Your task to perform on an android device: turn off javascript in the chrome app Image 0: 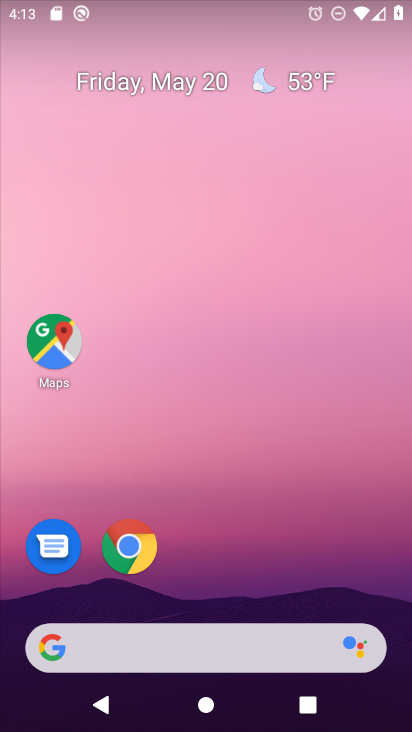
Step 0: click (133, 549)
Your task to perform on an android device: turn off javascript in the chrome app Image 1: 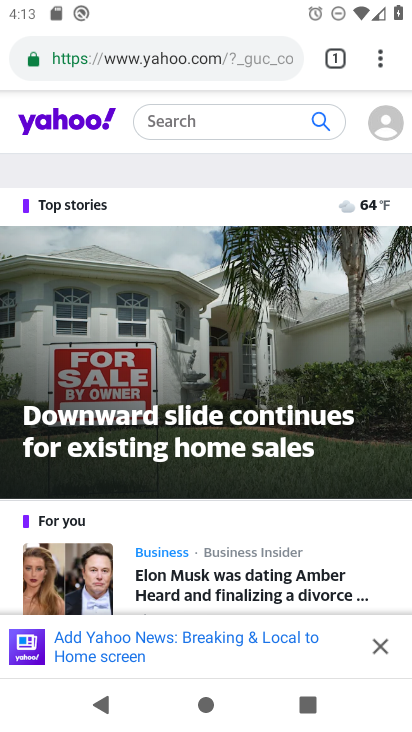
Step 1: drag from (381, 48) to (232, 582)
Your task to perform on an android device: turn off javascript in the chrome app Image 2: 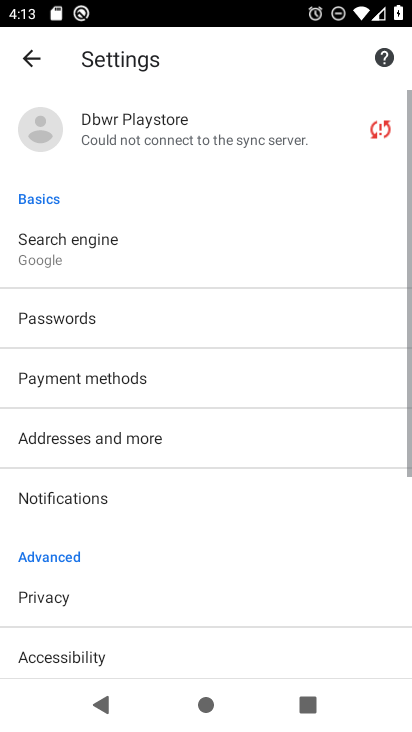
Step 2: drag from (226, 563) to (239, 178)
Your task to perform on an android device: turn off javascript in the chrome app Image 3: 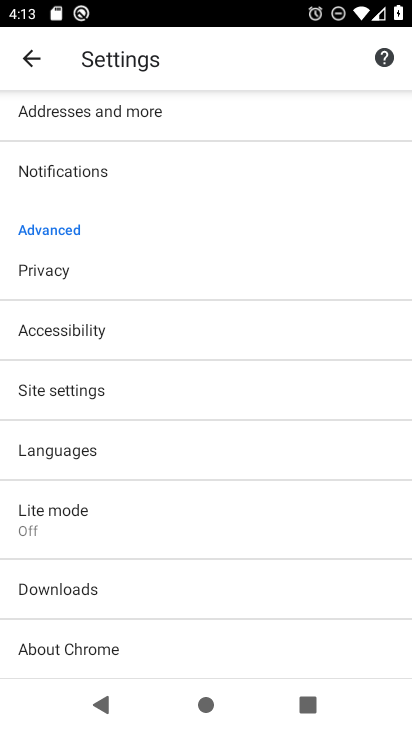
Step 3: click (167, 401)
Your task to perform on an android device: turn off javascript in the chrome app Image 4: 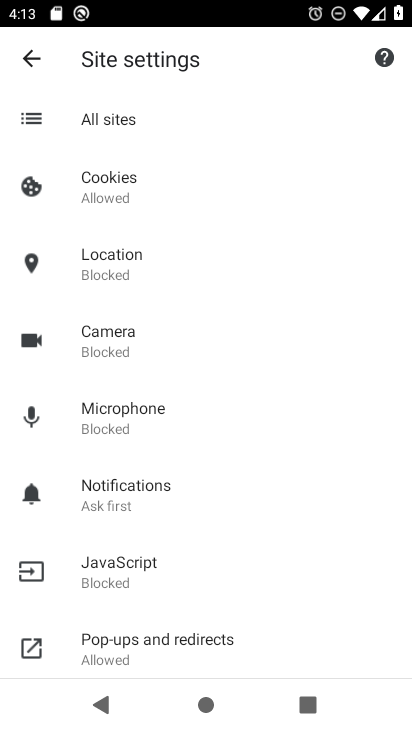
Step 4: click (152, 572)
Your task to perform on an android device: turn off javascript in the chrome app Image 5: 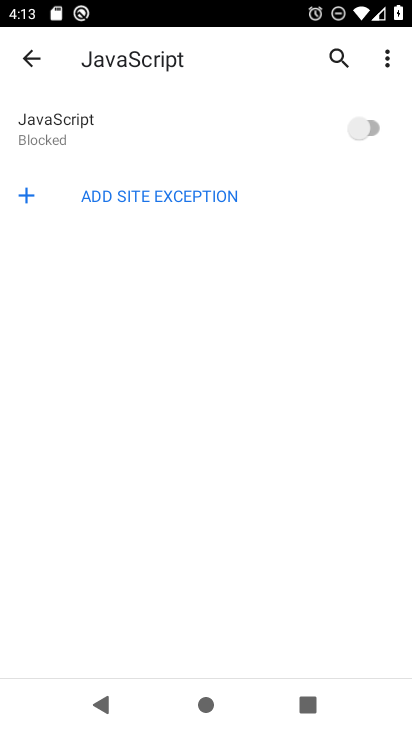
Step 5: task complete